Your task to perform on an android device: turn off location Image 0: 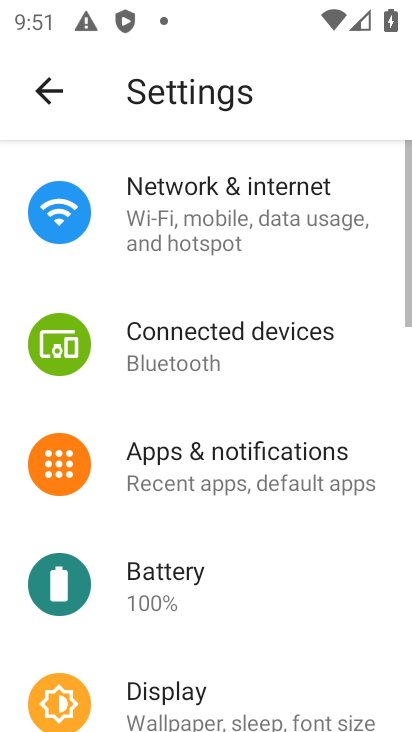
Step 0: press home button
Your task to perform on an android device: turn off location Image 1: 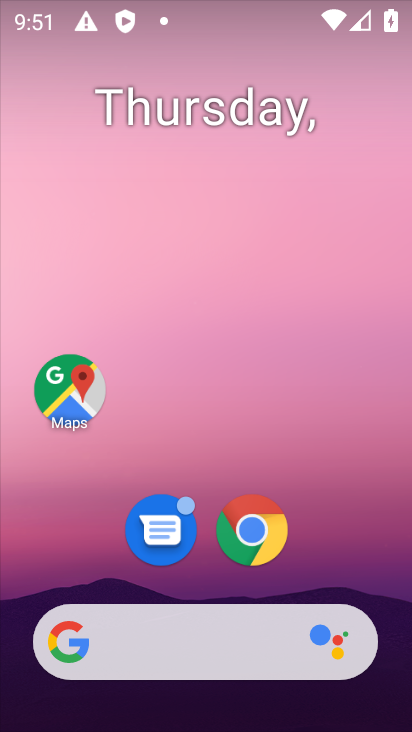
Step 1: drag from (356, 535) to (292, 73)
Your task to perform on an android device: turn off location Image 2: 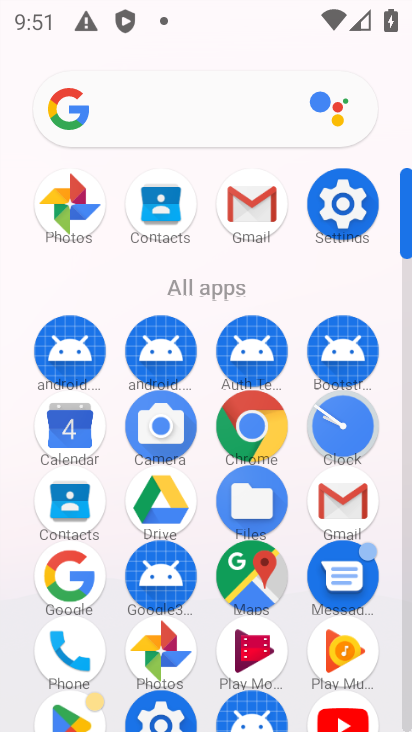
Step 2: click (335, 212)
Your task to perform on an android device: turn off location Image 3: 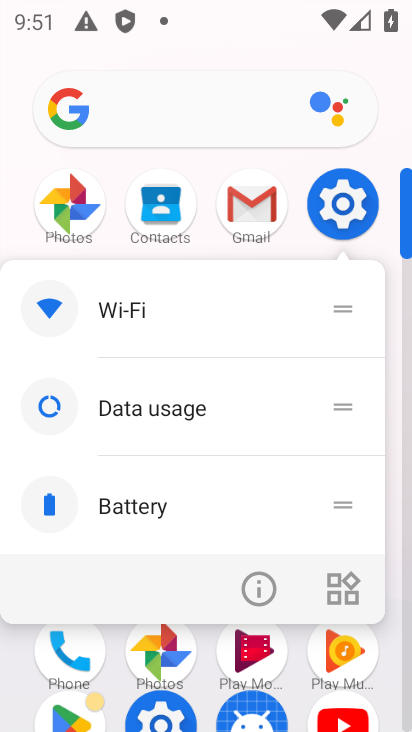
Step 3: click (333, 197)
Your task to perform on an android device: turn off location Image 4: 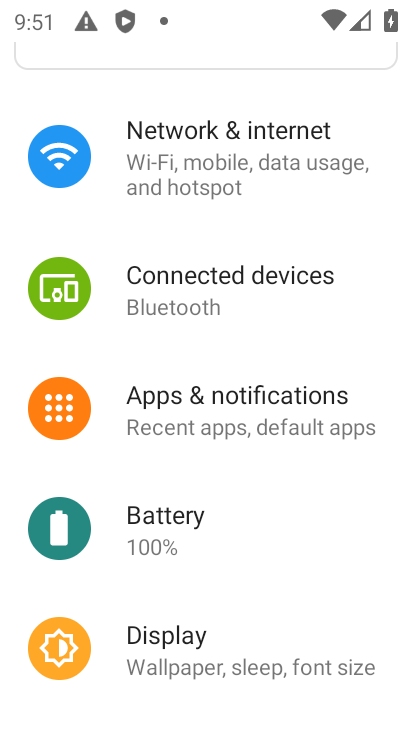
Step 4: drag from (219, 591) to (241, 171)
Your task to perform on an android device: turn off location Image 5: 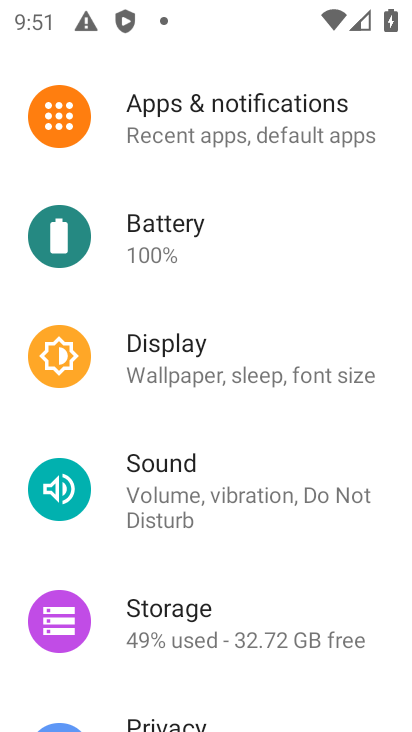
Step 5: drag from (178, 680) to (227, 102)
Your task to perform on an android device: turn off location Image 6: 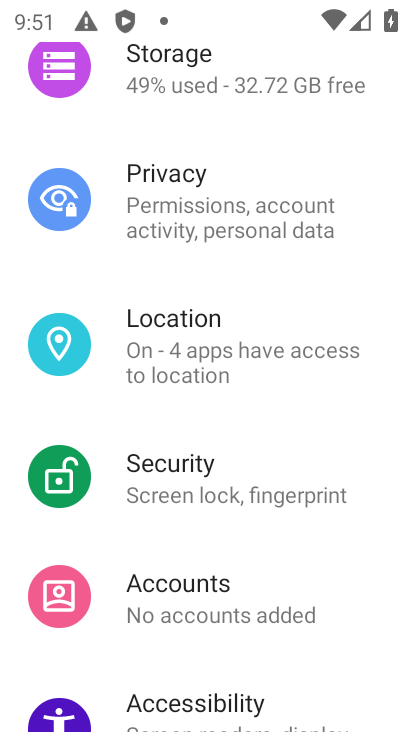
Step 6: drag from (173, 667) to (161, 530)
Your task to perform on an android device: turn off location Image 7: 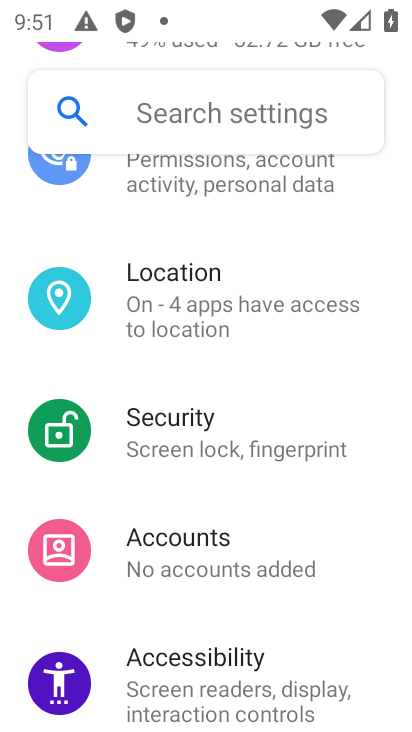
Step 7: click (172, 288)
Your task to perform on an android device: turn off location Image 8: 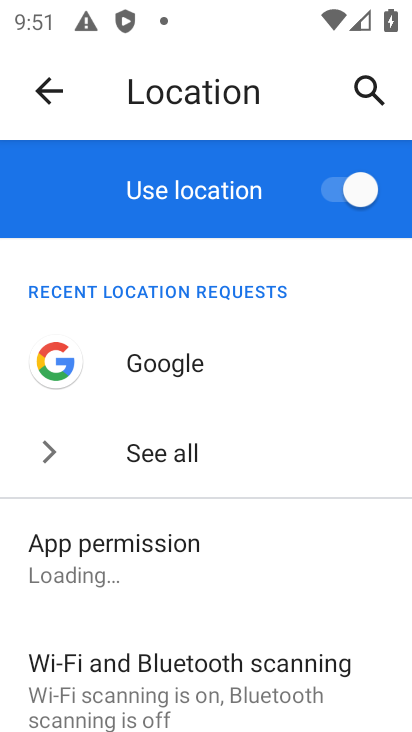
Step 8: click (353, 195)
Your task to perform on an android device: turn off location Image 9: 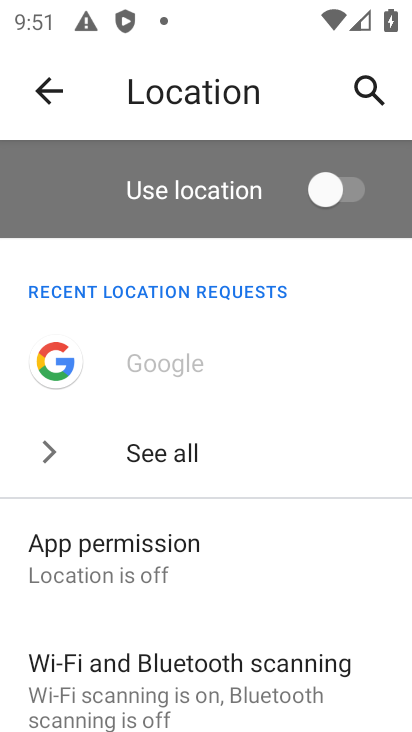
Step 9: task complete